Your task to perform on an android device: Open Chrome and go to settings Image 0: 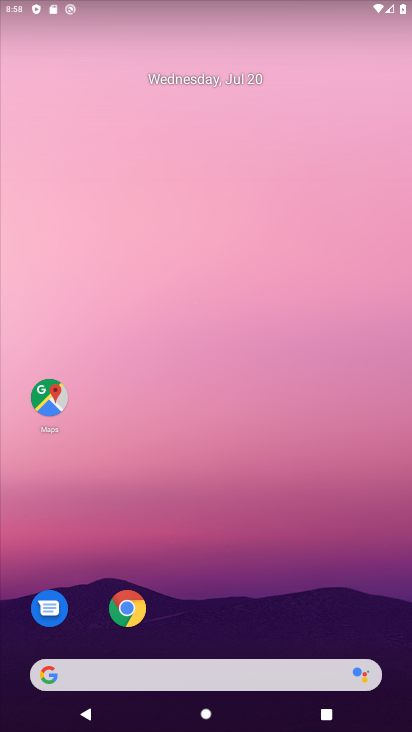
Step 0: click (110, 600)
Your task to perform on an android device: Open Chrome and go to settings Image 1: 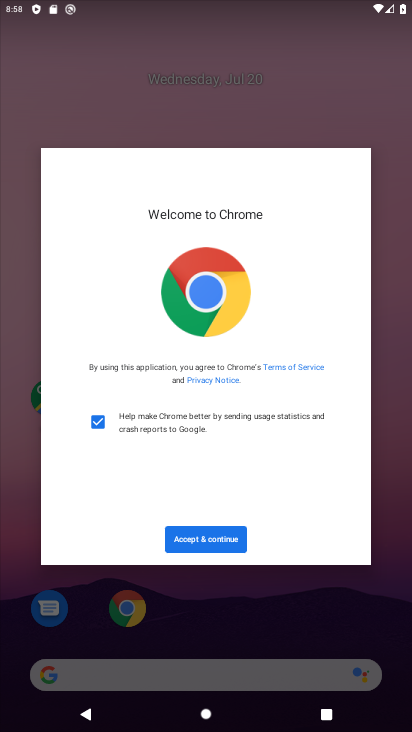
Step 1: click (187, 536)
Your task to perform on an android device: Open Chrome and go to settings Image 2: 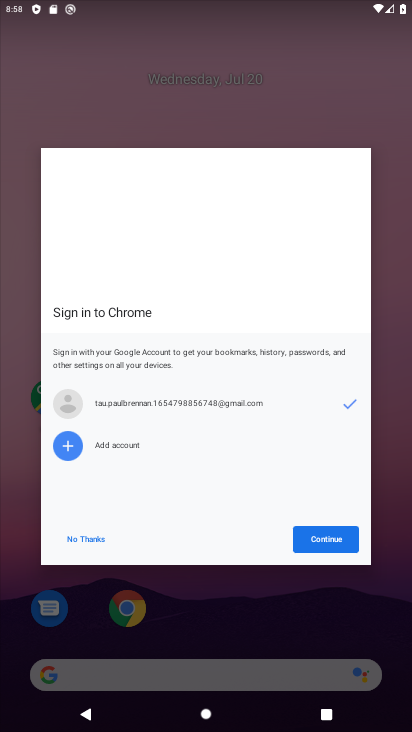
Step 2: click (304, 539)
Your task to perform on an android device: Open Chrome and go to settings Image 3: 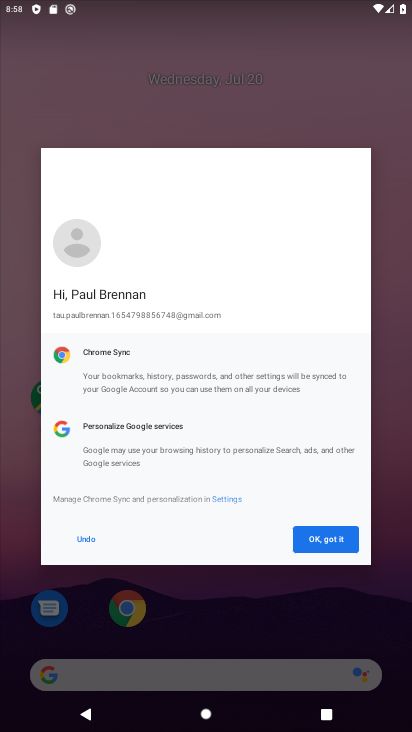
Step 3: click (304, 539)
Your task to perform on an android device: Open Chrome and go to settings Image 4: 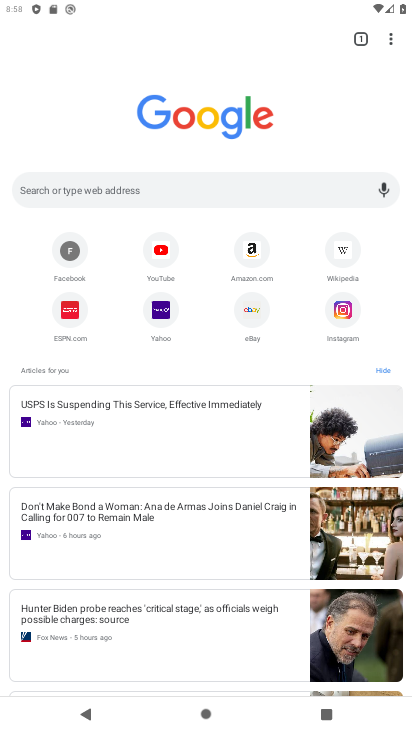
Step 4: click (392, 36)
Your task to perform on an android device: Open Chrome and go to settings Image 5: 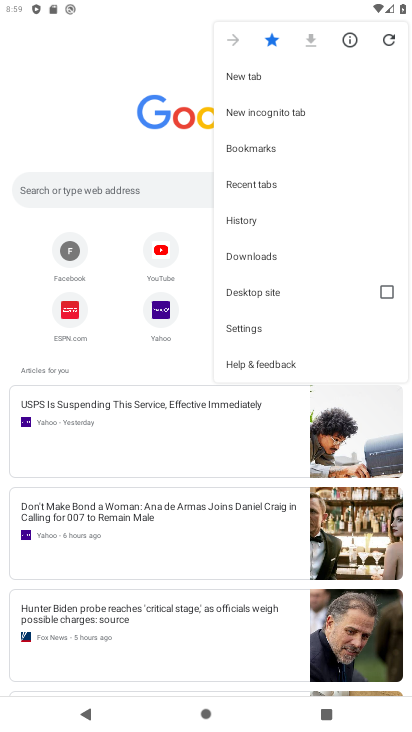
Step 5: click (255, 327)
Your task to perform on an android device: Open Chrome and go to settings Image 6: 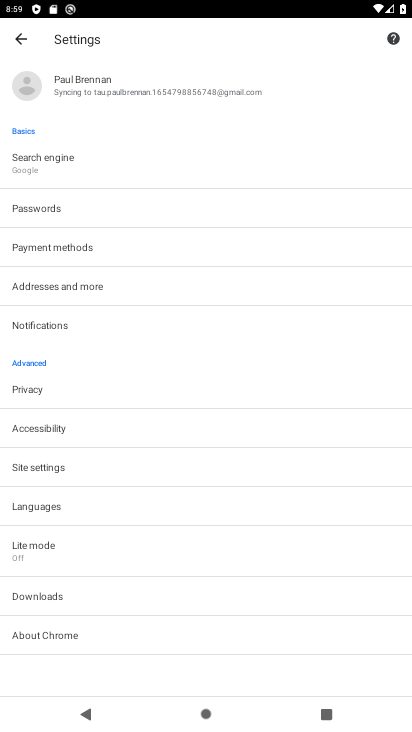
Step 6: task complete